Your task to perform on an android device: delete location history Image 0: 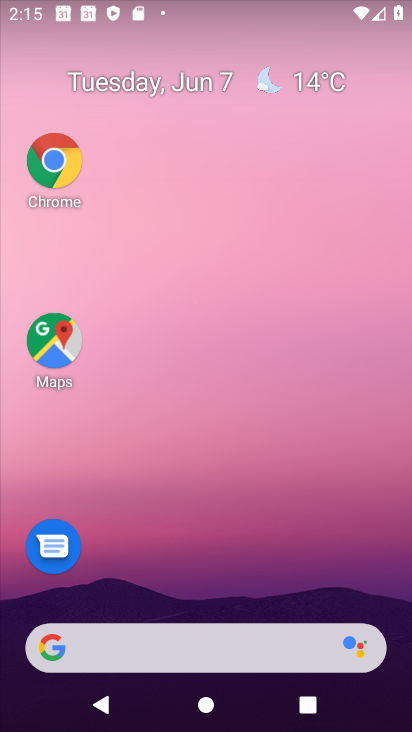
Step 0: drag from (185, 570) to (182, 0)
Your task to perform on an android device: delete location history Image 1: 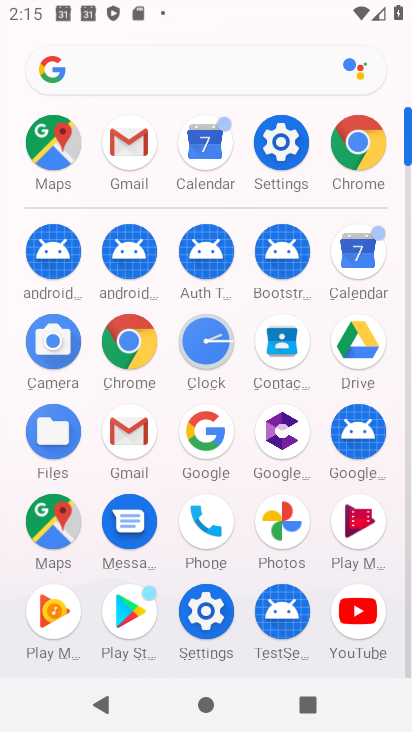
Step 1: click (288, 129)
Your task to perform on an android device: delete location history Image 2: 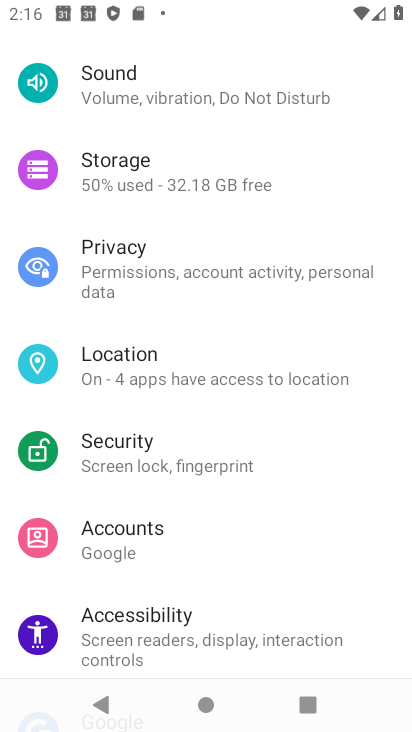
Step 2: click (160, 362)
Your task to perform on an android device: delete location history Image 3: 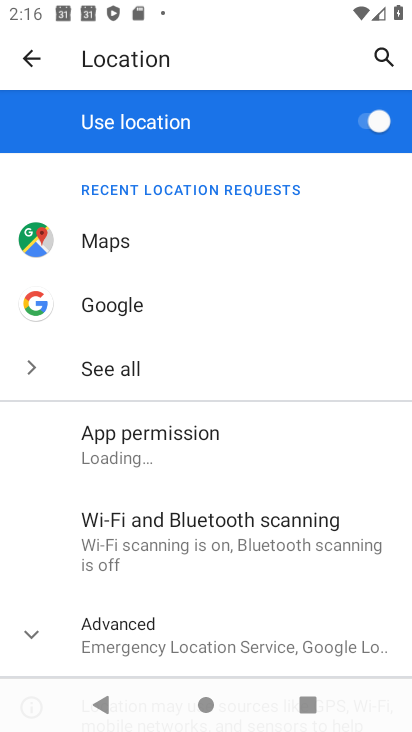
Step 3: drag from (253, 541) to (280, 145)
Your task to perform on an android device: delete location history Image 4: 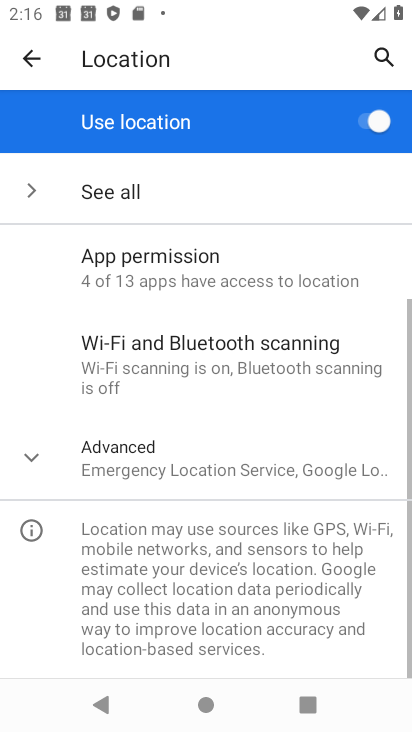
Step 4: click (145, 456)
Your task to perform on an android device: delete location history Image 5: 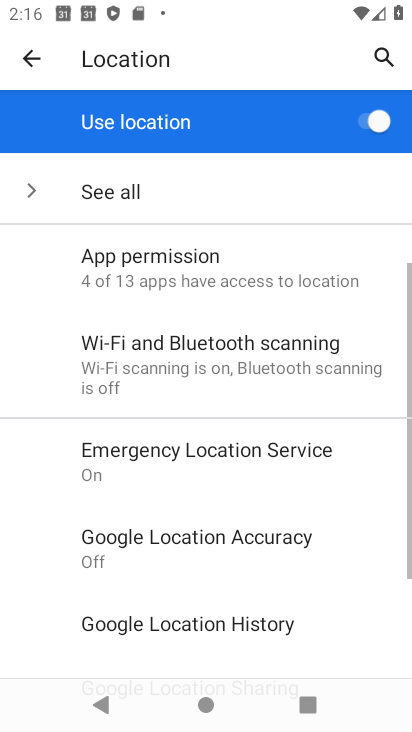
Step 5: drag from (253, 479) to (307, 142)
Your task to perform on an android device: delete location history Image 6: 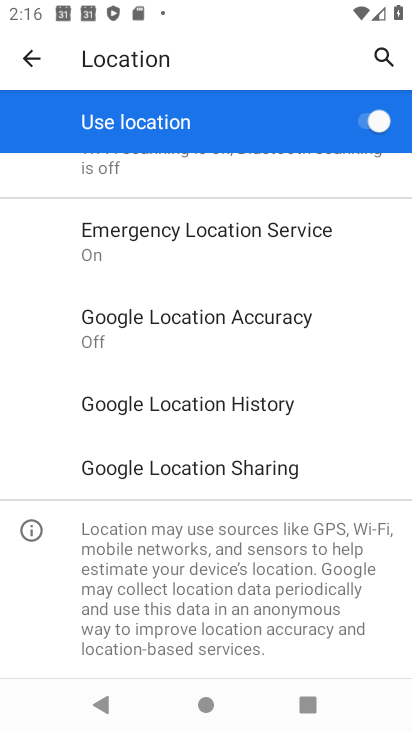
Step 6: click (239, 401)
Your task to perform on an android device: delete location history Image 7: 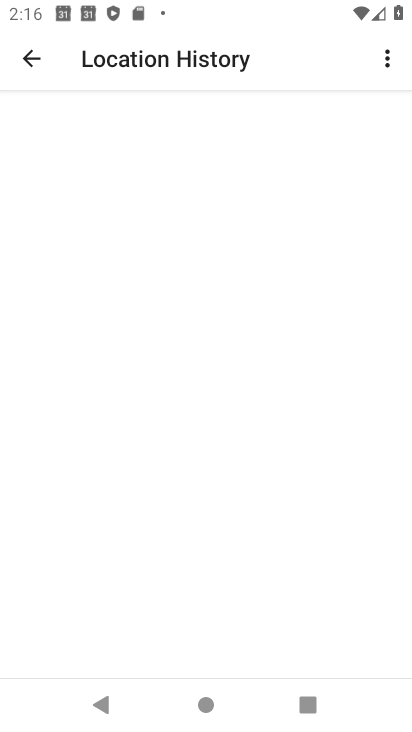
Step 7: drag from (241, 510) to (314, 162)
Your task to perform on an android device: delete location history Image 8: 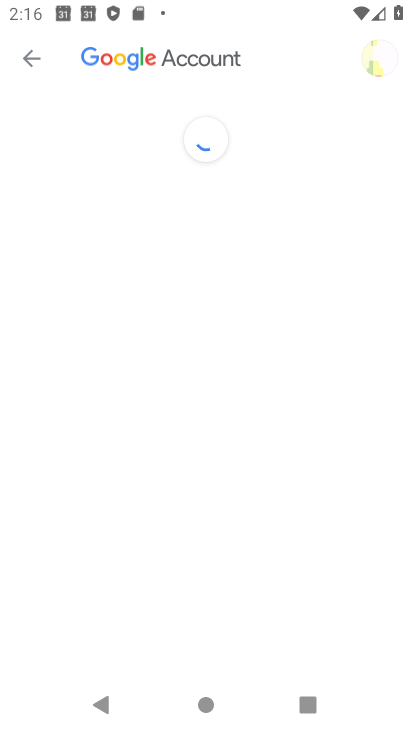
Step 8: drag from (212, 416) to (270, 153)
Your task to perform on an android device: delete location history Image 9: 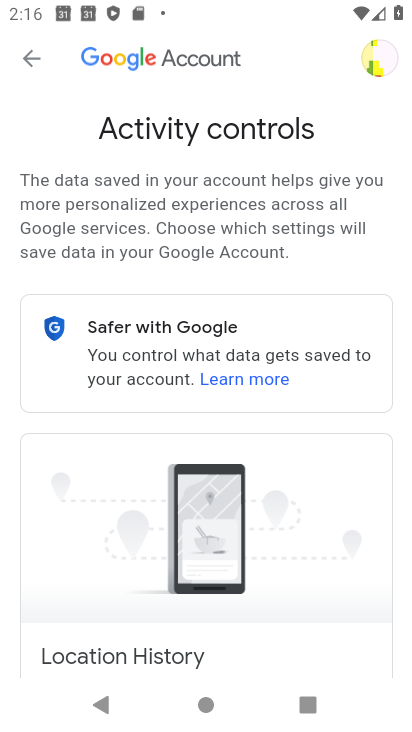
Step 9: drag from (290, 572) to (309, 0)
Your task to perform on an android device: delete location history Image 10: 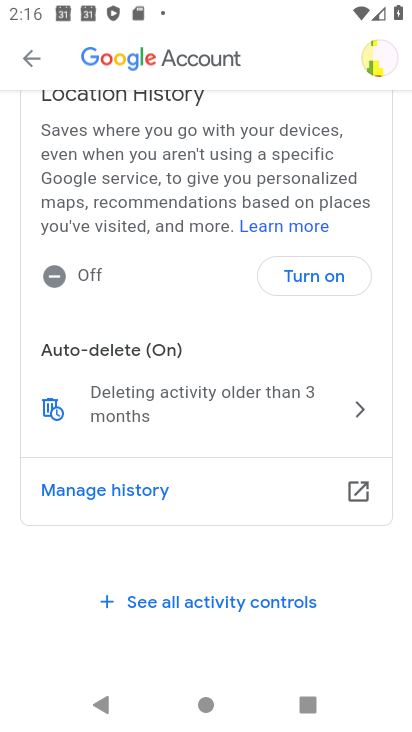
Step 10: drag from (247, 456) to (248, 199)
Your task to perform on an android device: delete location history Image 11: 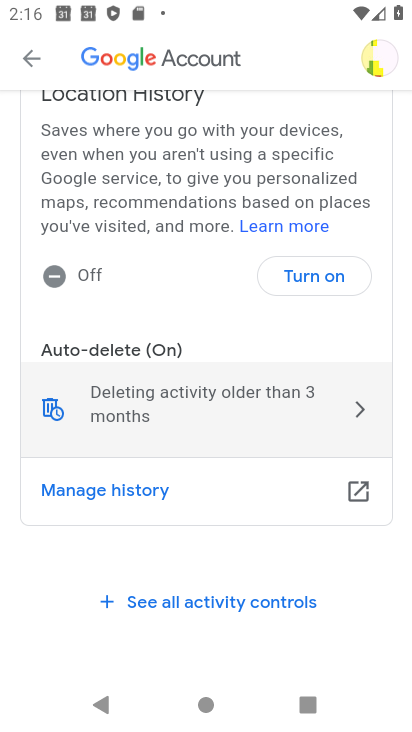
Step 11: drag from (249, 542) to (252, 297)
Your task to perform on an android device: delete location history Image 12: 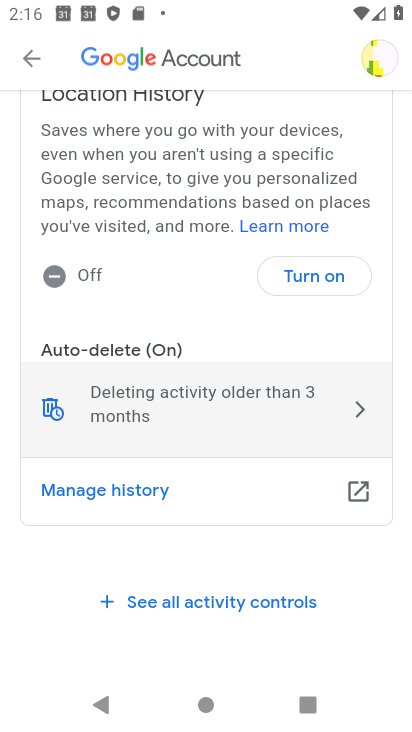
Step 12: drag from (219, 184) to (242, 532)
Your task to perform on an android device: delete location history Image 13: 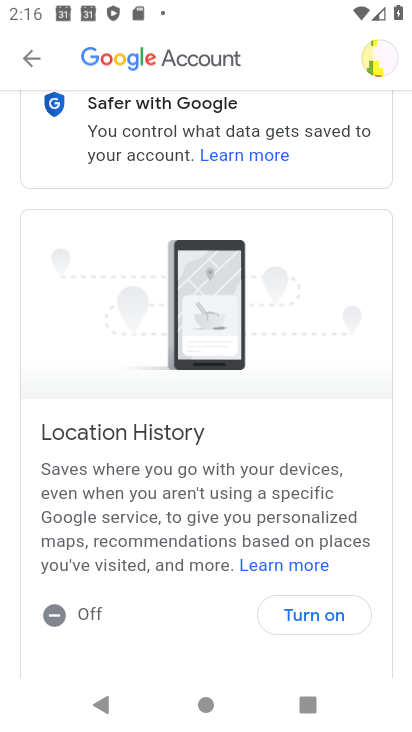
Step 13: drag from (201, 516) to (211, 251)
Your task to perform on an android device: delete location history Image 14: 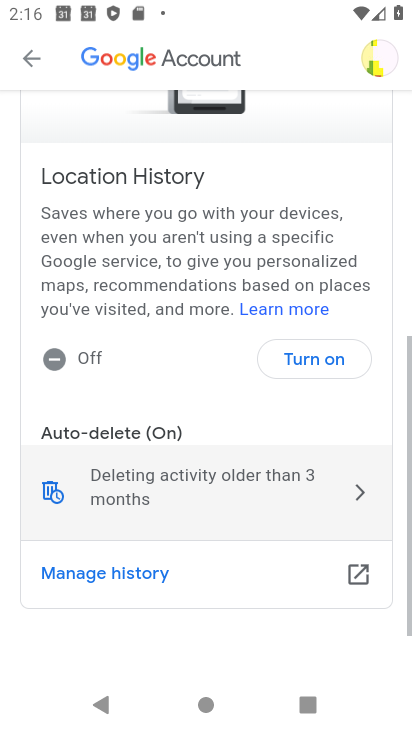
Step 14: drag from (222, 178) to (215, 622)
Your task to perform on an android device: delete location history Image 15: 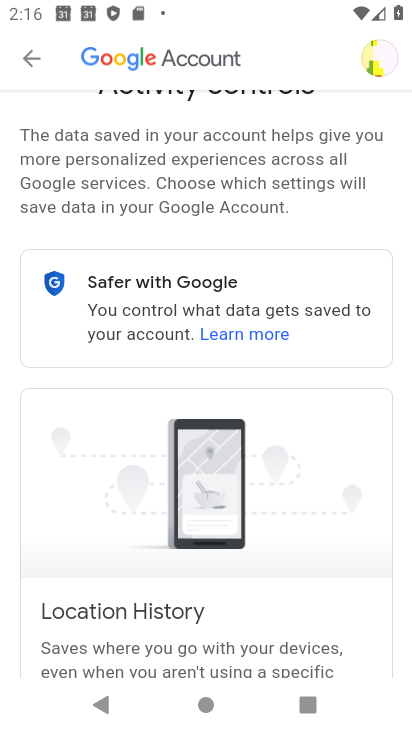
Step 15: drag from (202, 189) to (242, 662)
Your task to perform on an android device: delete location history Image 16: 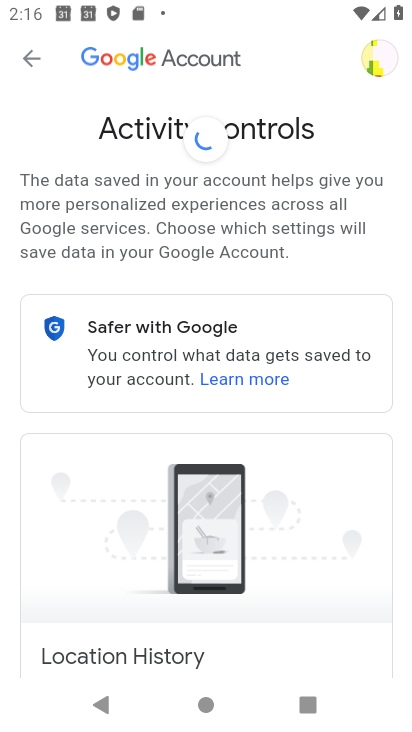
Step 16: drag from (214, 516) to (225, 163)
Your task to perform on an android device: delete location history Image 17: 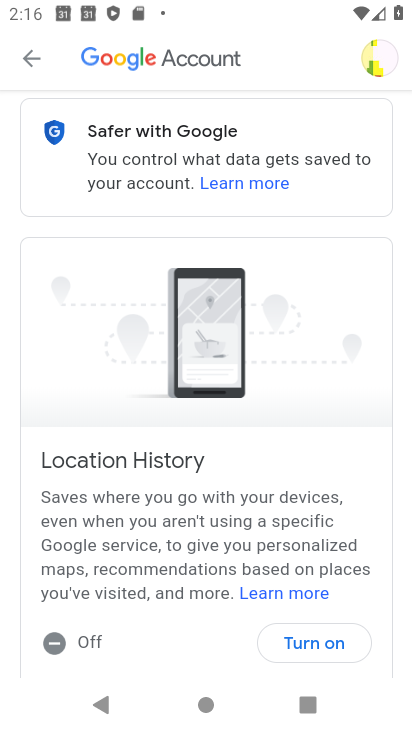
Step 17: drag from (189, 552) to (215, 300)
Your task to perform on an android device: delete location history Image 18: 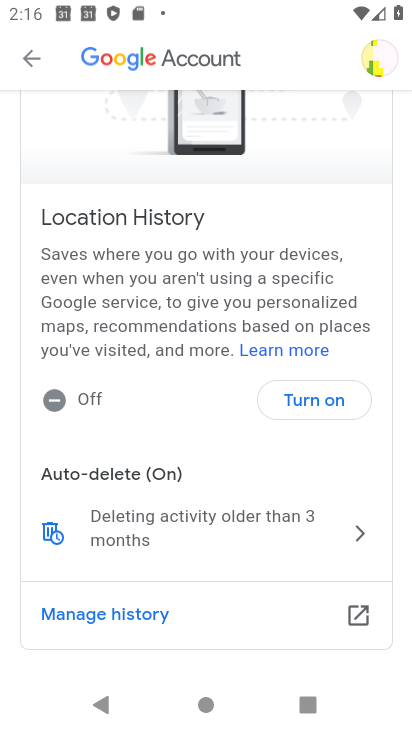
Step 18: drag from (200, 514) to (222, 272)
Your task to perform on an android device: delete location history Image 19: 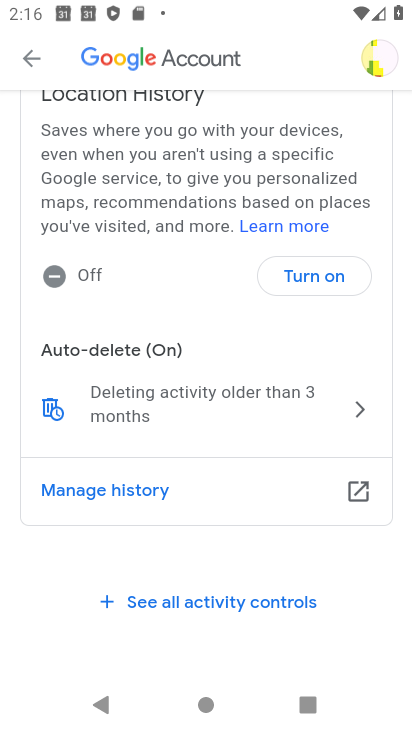
Step 19: drag from (203, 544) to (195, 257)
Your task to perform on an android device: delete location history Image 20: 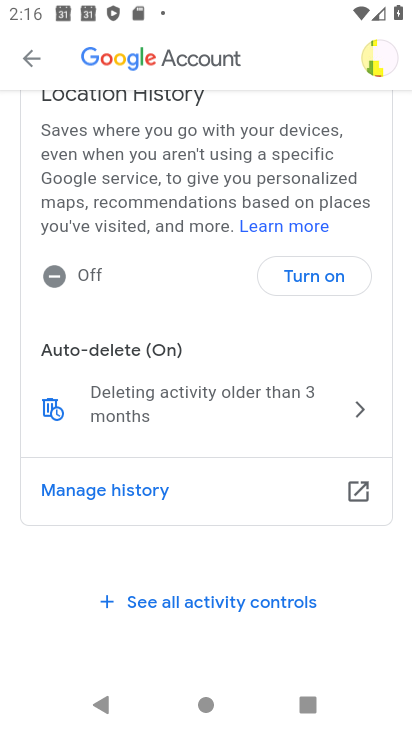
Step 20: drag from (194, 186) to (229, 582)
Your task to perform on an android device: delete location history Image 21: 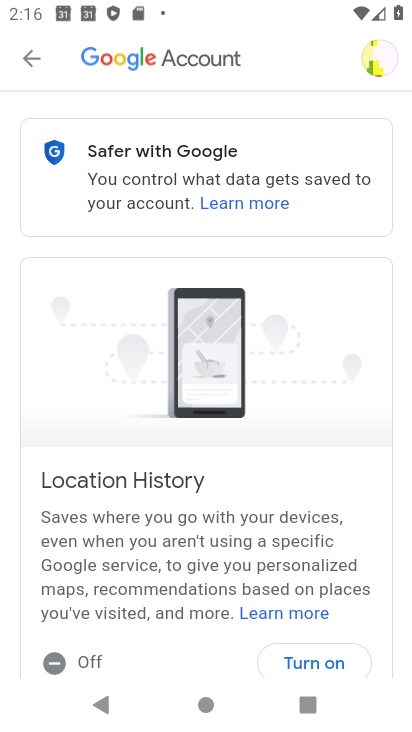
Step 21: drag from (213, 551) to (213, 290)
Your task to perform on an android device: delete location history Image 22: 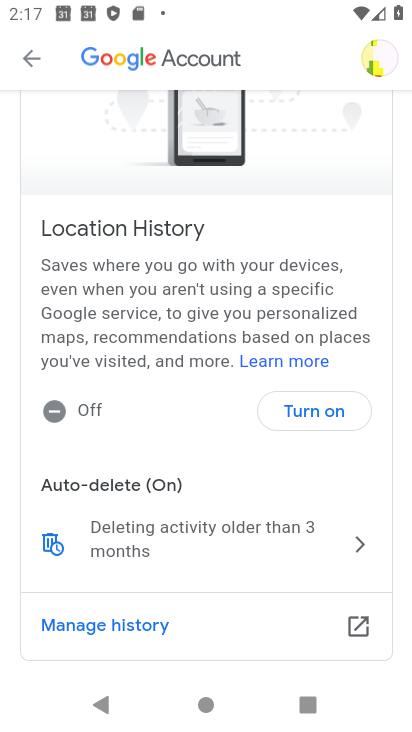
Step 22: drag from (183, 547) to (198, 287)
Your task to perform on an android device: delete location history Image 23: 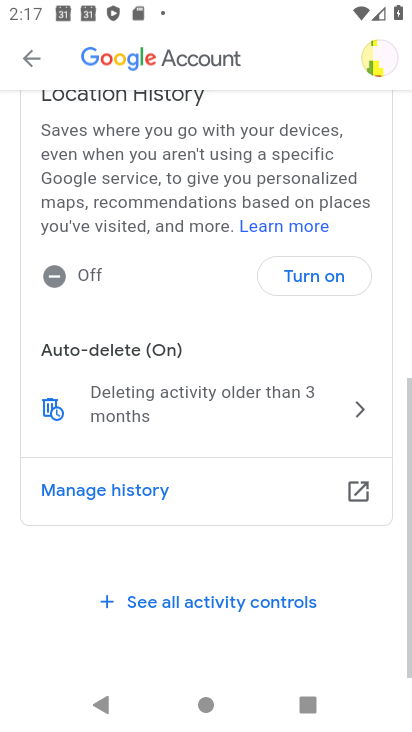
Step 23: drag from (191, 232) to (184, 729)
Your task to perform on an android device: delete location history Image 24: 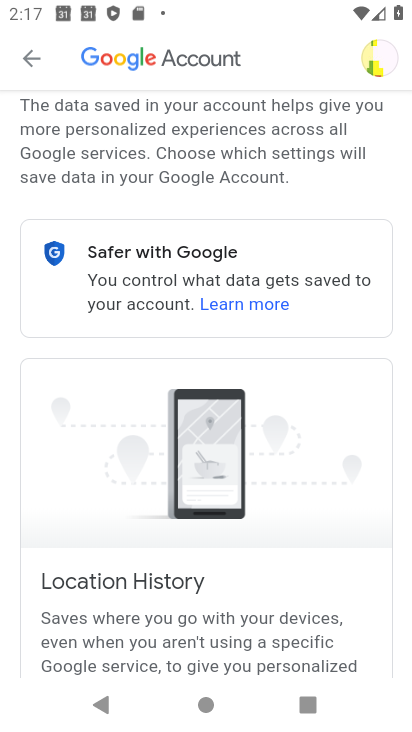
Step 24: drag from (202, 253) to (235, 697)
Your task to perform on an android device: delete location history Image 25: 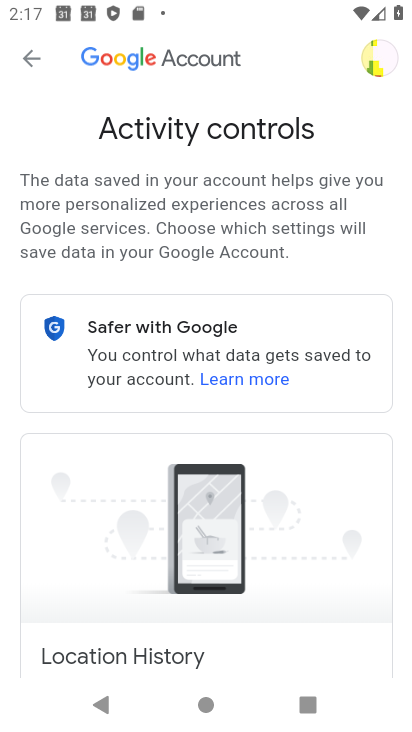
Step 25: drag from (217, 532) to (276, 184)
Your task to perform on an android device: delete location history Image 26: 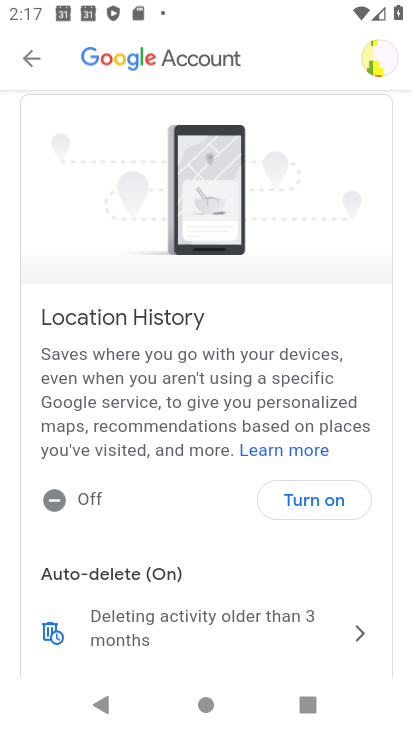
Step 26: click (53, 624)
Your task to perform on an android device: delete location history Image 27: 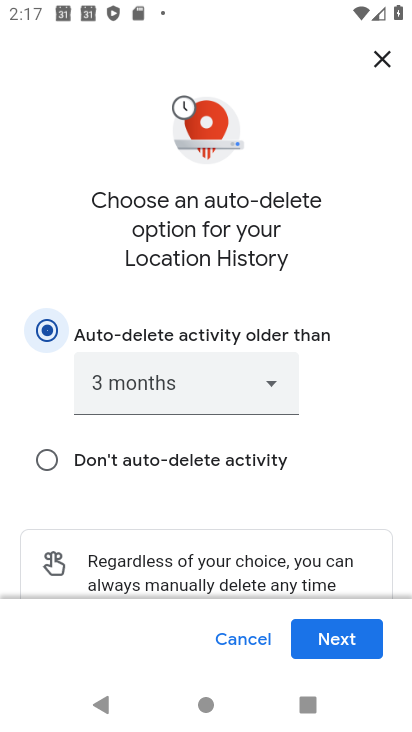
Step 27: drag from (204, 548) to (235, 24)
Your task to perform on an android device: delete location history Image 28: 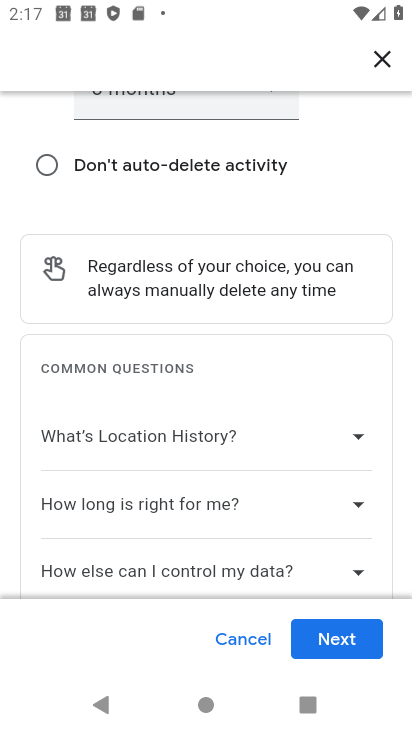
Step 28: click (336, 622)
Your task to perform on an android device: delete location history Image 29: 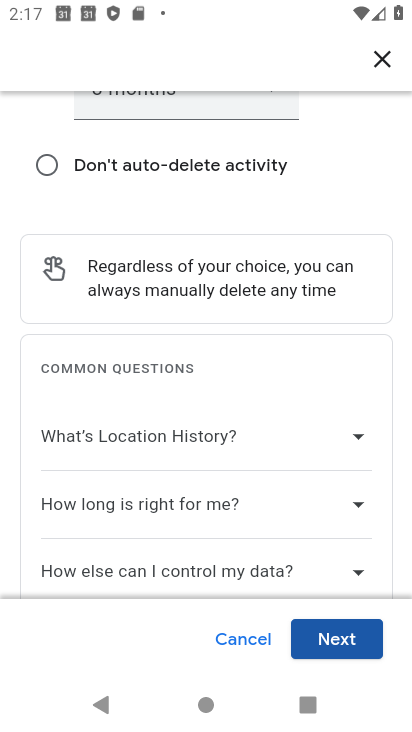
Step 29: click (343, 629)
Your task to perform on an android device: delete location history Image 30: 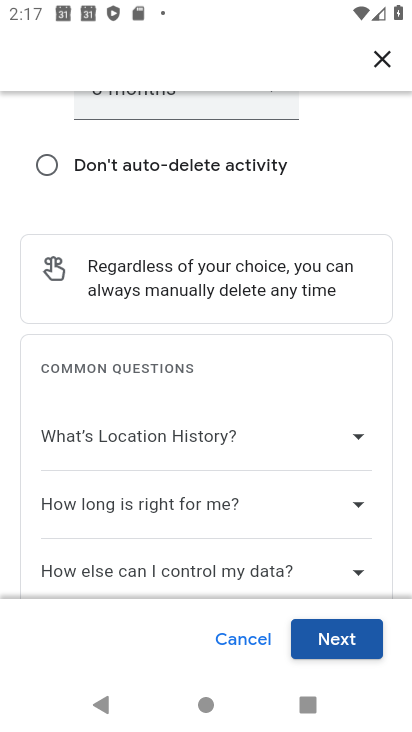
Step 30: click (344, 629)
Your task to perform on an android device: delete location history Image 31: 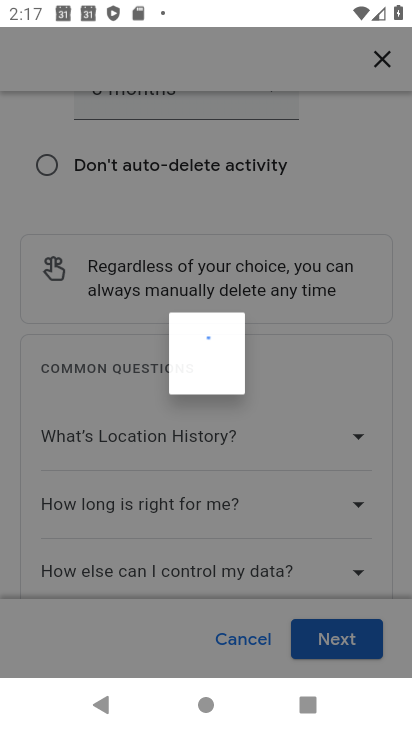
Step 31: click (312, 628)
Your task to perform on an android device: delete location history Image 32: 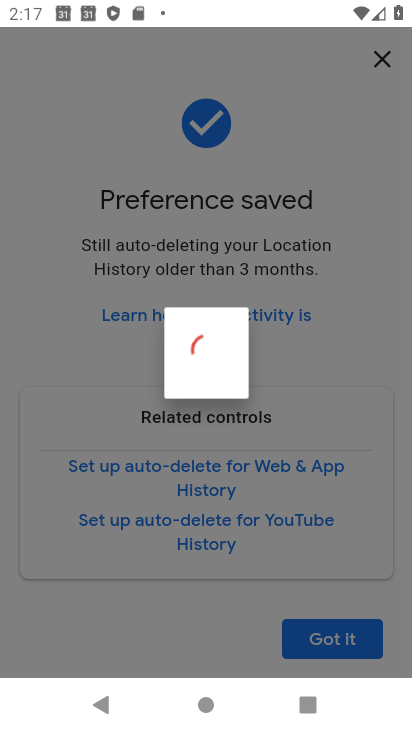
Step 32: click (332, 625)
Your task to perform on an android device: delete location history Image 33: 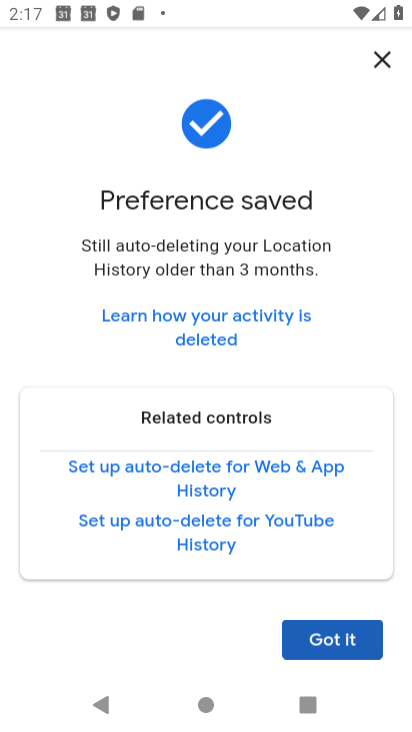
Step 33: click (356, 640)
Your task to perform on an android device: delete location history Image 34: 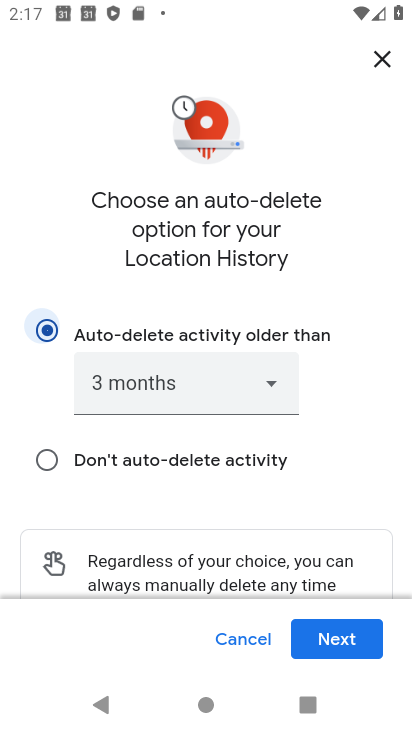
Step 34: task complete